Your task to perform on an android device: toggle show notifications on the lock screen Image 0: 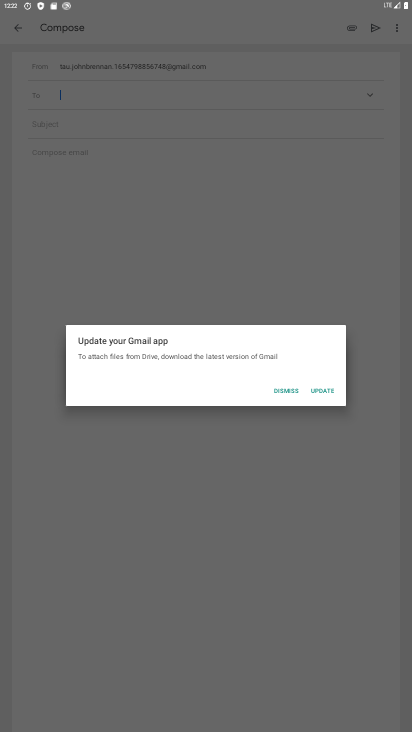
Step 0: click (287, 386)
Your task to perform on an android device: toggle show notifications on the lock screen Image 1: 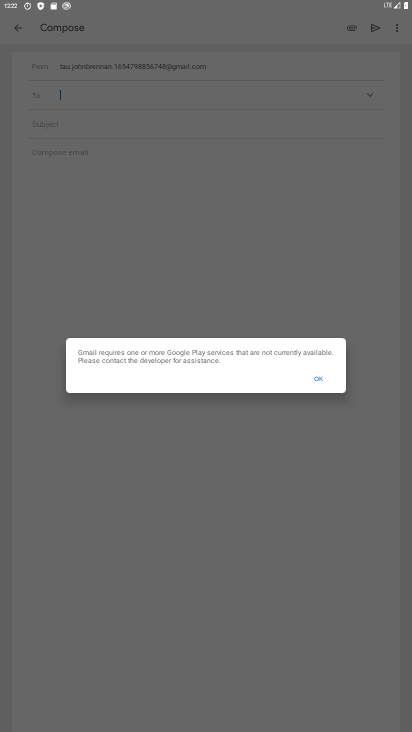
Step 1: click (331, 382)
Your task to perform on an android device: toggle show notifications on the lock screen Image 2: 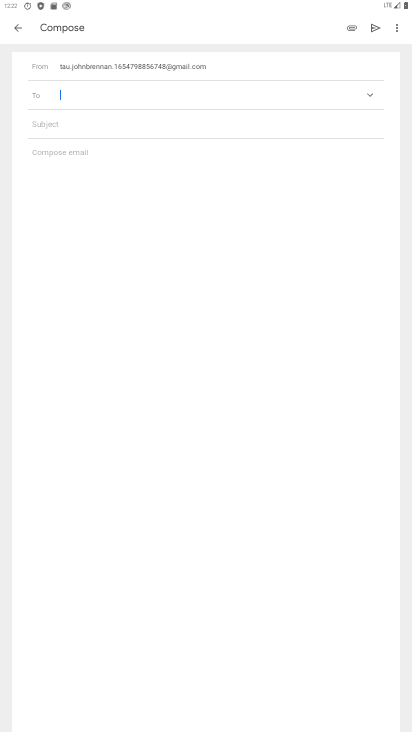
Step 2: drag from (190, 691) to (163, 425)
Your task to perform on an android device: toggle show notifications on the lock screen Image 3: 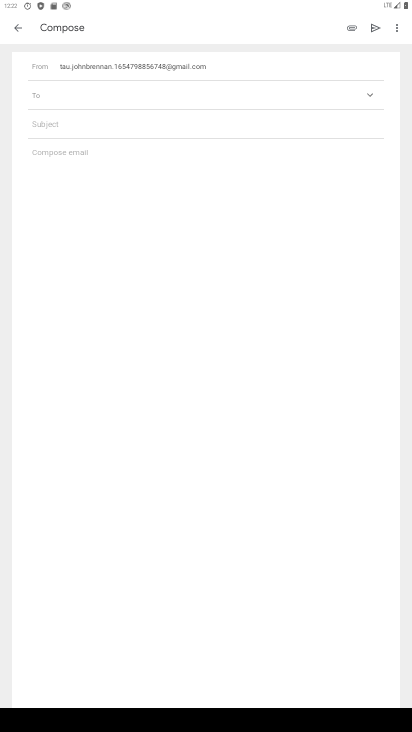
Step 3: drag from (202, 728) to (197, 380)
Your task to perform on an android device: toggle show notifications on the lock screen Image 4: 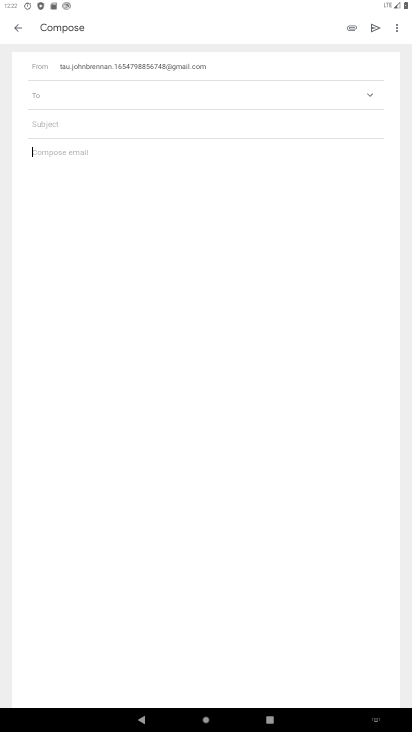
Step 4: click (208, 728)
Your task to perform on an android device: toggle show notifications on the lock screen Image 5: 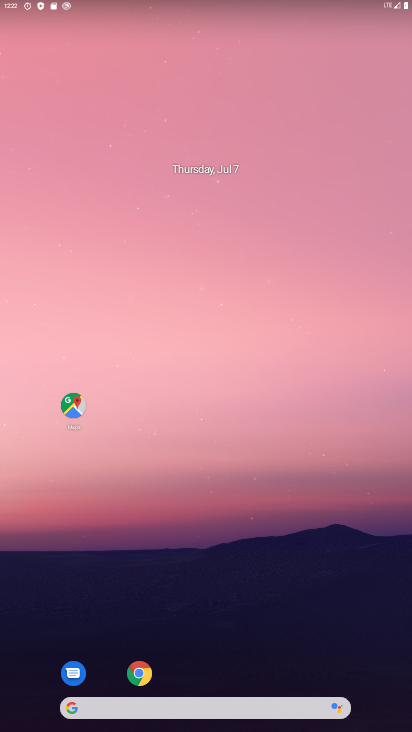
Step 5: drag from (227, 636) to (216, 287)
Your task to perform on an android device: toggle show notifications on the lock screen Image 6: 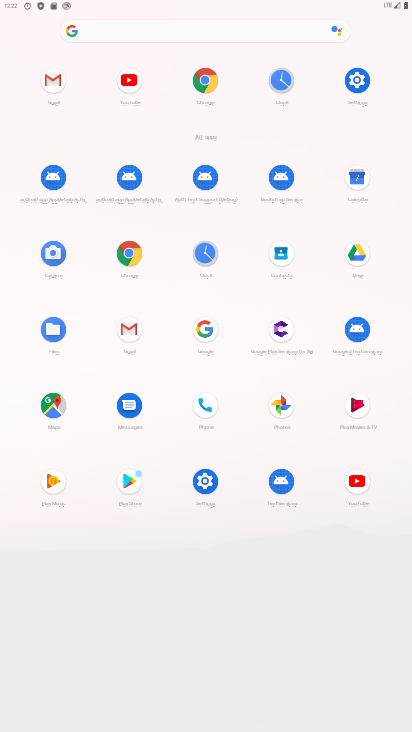
Step 6: click (199, 503)
Your task to perform on an android device: toggle show notifications on the lock screen Image 7: 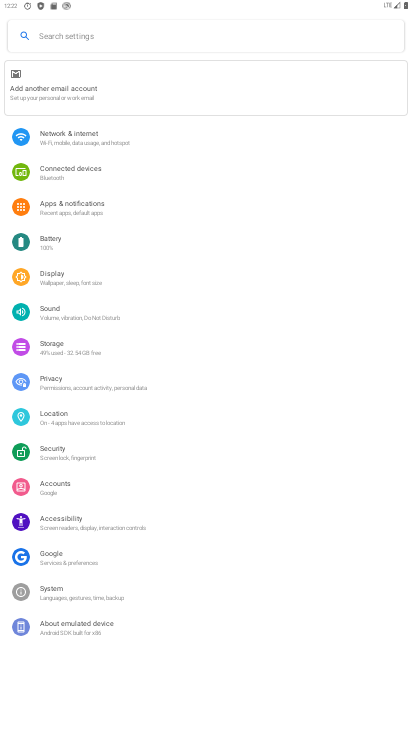
Step 7: click (81, 215)
Your task to perform on an android device: toggle show notifications on the lock screen Image 8: 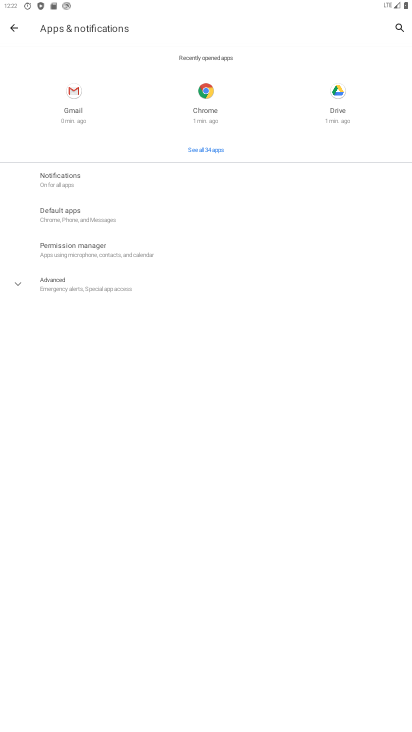
Step 8: click (93, 180)
Your task to perform on an android device: toggle show notifications on the lock screen Image 9: 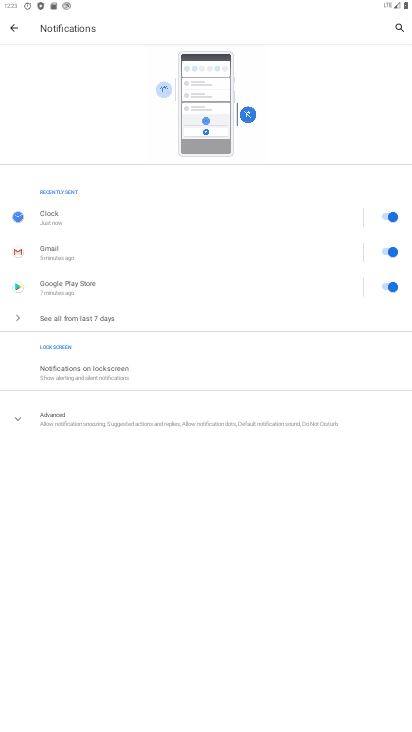
Step 9: click (63, 375)
Your task to perform on an android device: toggle show notifications on the lock screen Image 10: 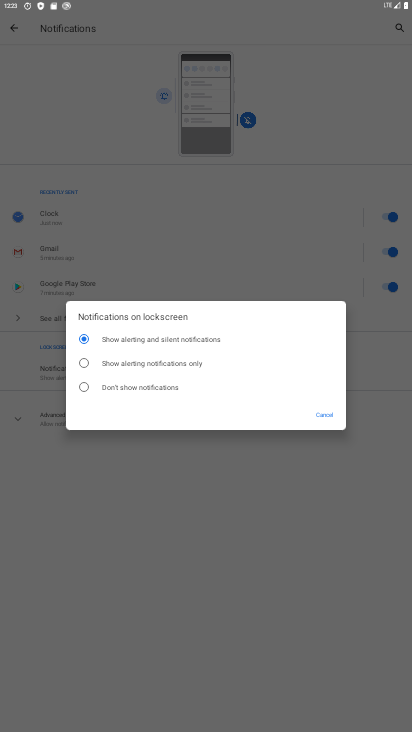
Step 10: click (111, 386)
Your task to perform on an android device: toggle show notifications on the lock screen Image 11: 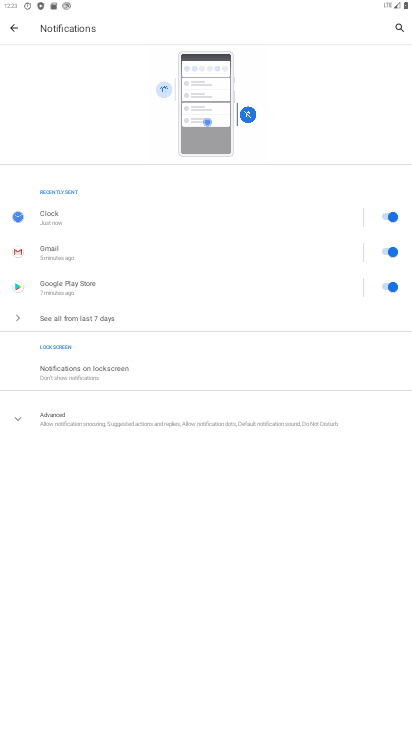
Step 11: click (88, 384)
Your task to perform on an android device: toggle show notifications on the lock screen Image 12: 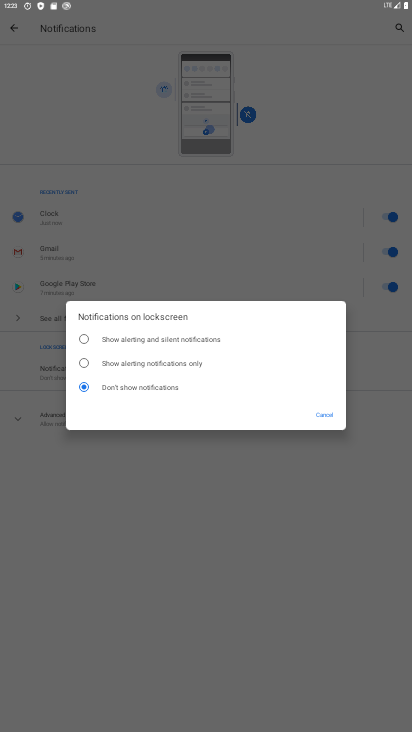
Step 12: click (86, 332)
Your task to perform on an android device: toggle show notifications on the lock screen Image 13: 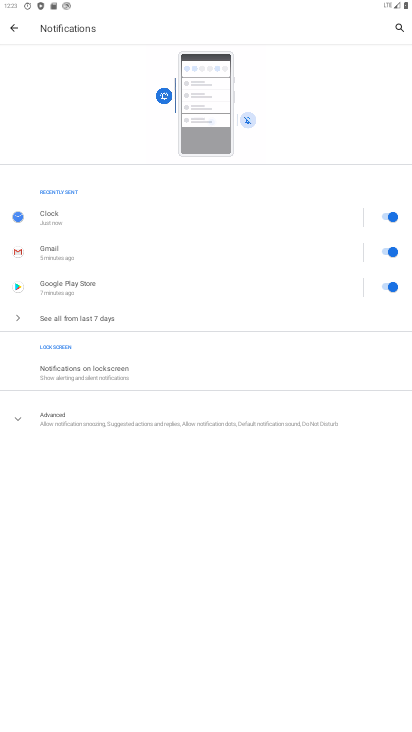
Step 13: task complete